Your task to perform on an android device: What is the recent news? Image 0: 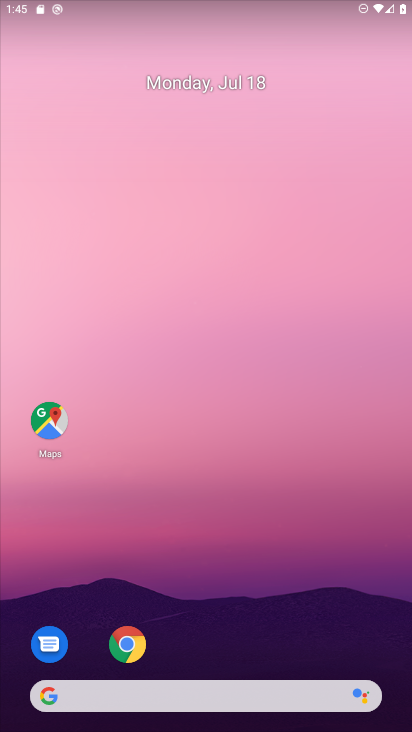
Step 0: drag from (5, 258) to (402, 334)
Your task to perform on an android device: What is the recent news? Image 1: 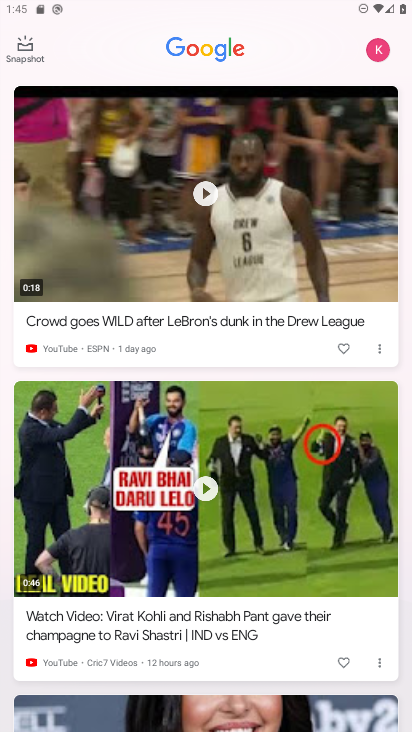
Step 1: task complete